Your task to perform on an android device: See recent photos Image 0: 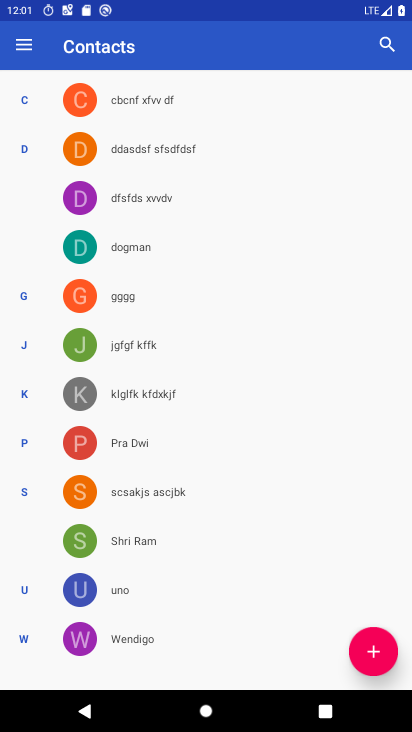
Step 0: press home button
Your task to perform on an android device: See recent photos Image 1: 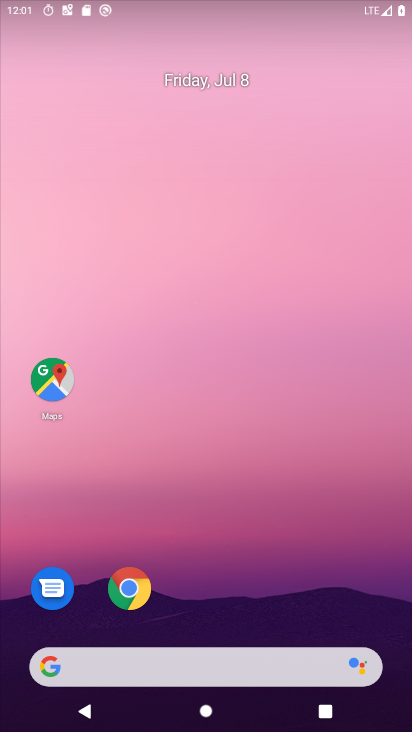
Step 1: drag from (195, 664) to (233, 68)
Your task to perform on an android device: See recent photos Image 2: 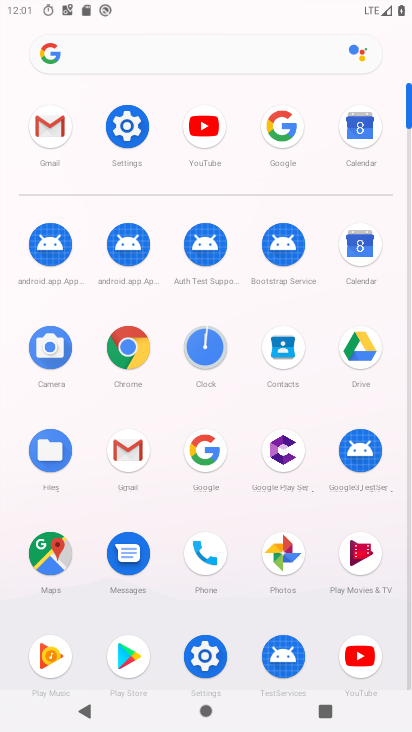
Step 2: click (290, 558)
Your task to perform on an android device: See recent photos Image 3: 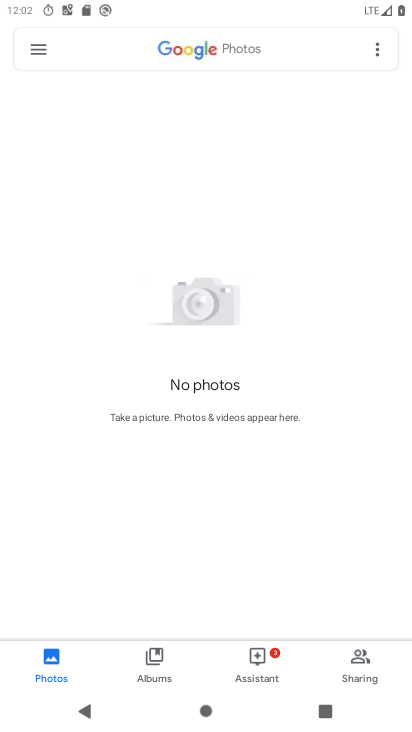
Step 3: task complete